Your task to perform on an android device: Open location settings Image 0: 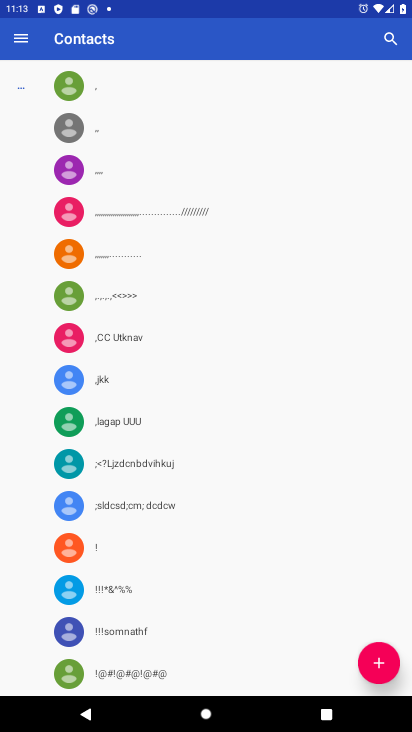
Step 0: press home button
Your task to perform on an android device: Open location settings Image 1: 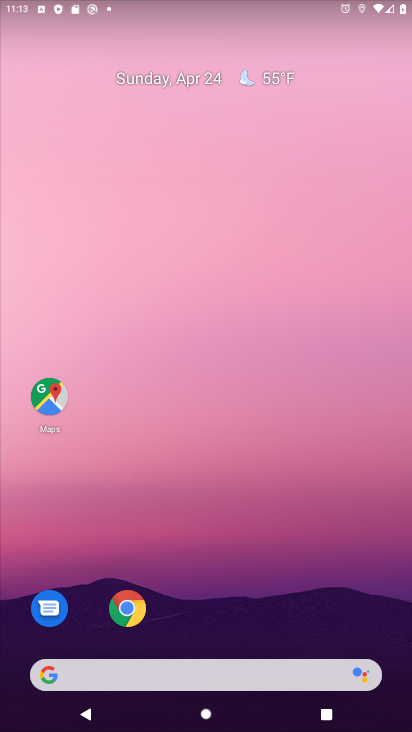
Step 1: drag from (350, 610) to (334, 81)
Your task to perform on an android device: Open location settings Image 2: 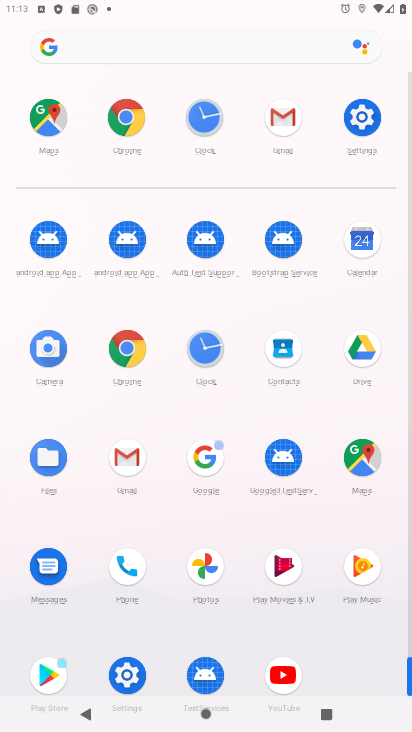
Step 2: click (411, 611)
Your task to perform on an android device: Open location settings Image 3: 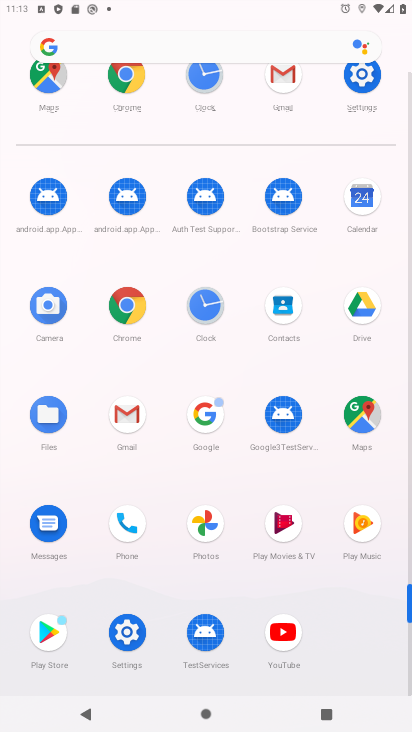
Step 3: click (123, 629)
Your task to perform on an android device: Open location settings Image 4: 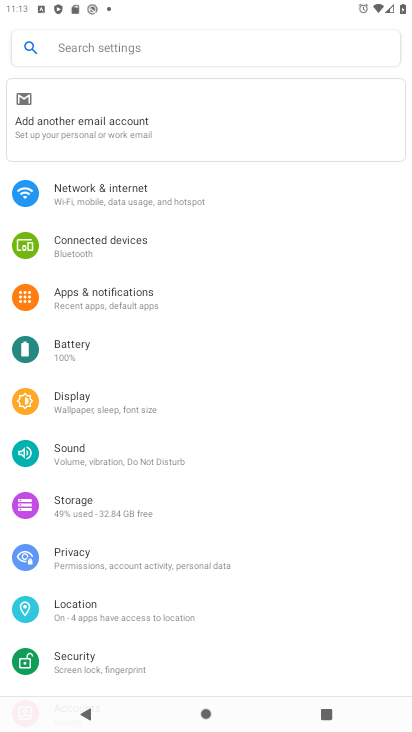
Step 4: click (64, 602)
Your task to perform on an android device: Open location settings Image 5: 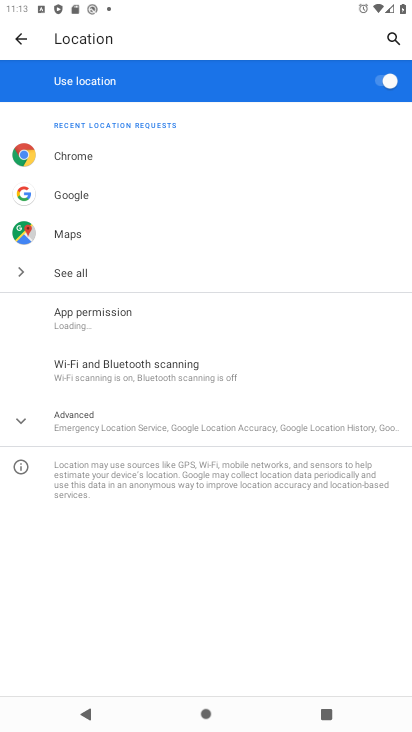
Step 5: click (17, 419)
Your task to perform on an android device: Open location settings Image 6: 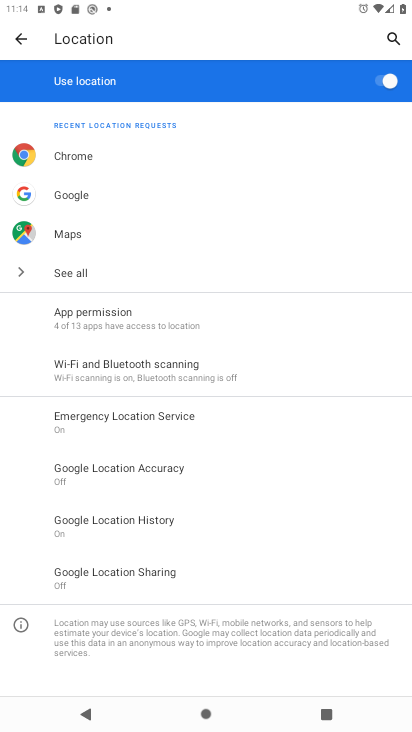
Step 6: task complete